Your task to perform on an android device: delete a single message in the gmail app Image 0: 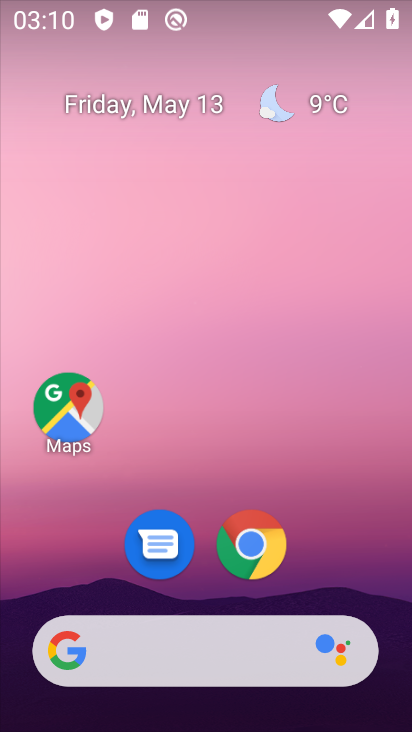
Step 0: drag from (286, 485) to (51, 154)
Your task to perform on an android device: delete a single message in the gmail app Image 1: 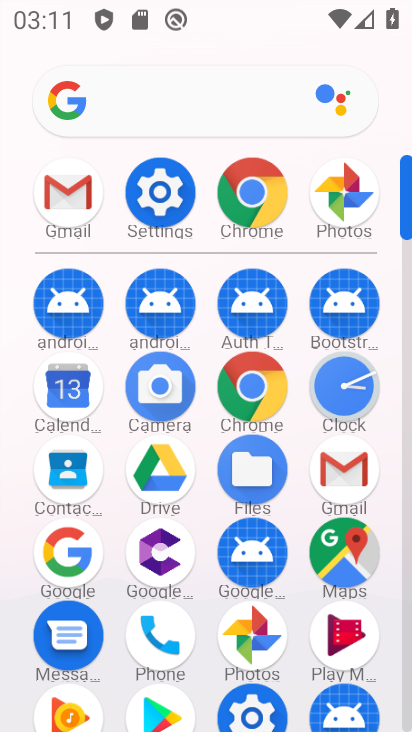
Step 1: drag from (30, 627) to (23, 355)
Your task to perform on an android device: delete a single message in the gmail app Image 2: 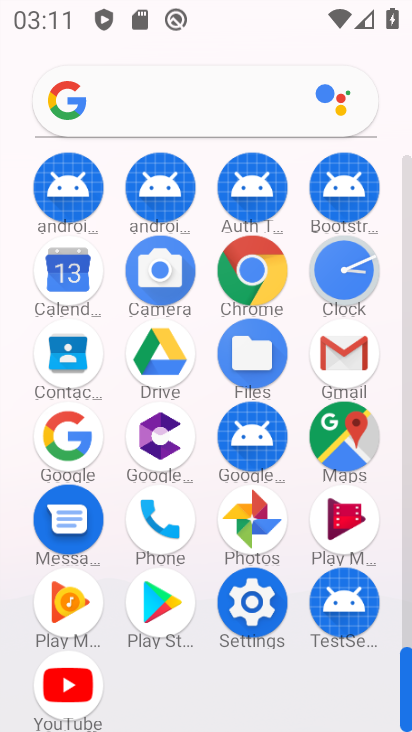
Step 2: click (345, 345)
Your task to perform on an android device: delete a single message in the gmail app Image 3: 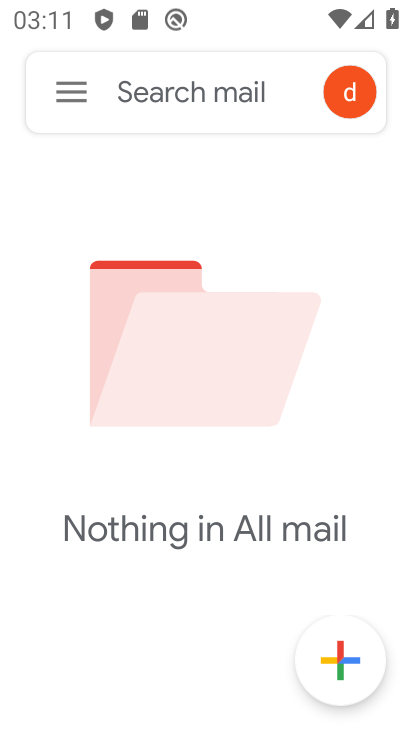
Step 3: click (52, 81)
Your task to perform on an android device: delete a single message in the gmail app Image 4: 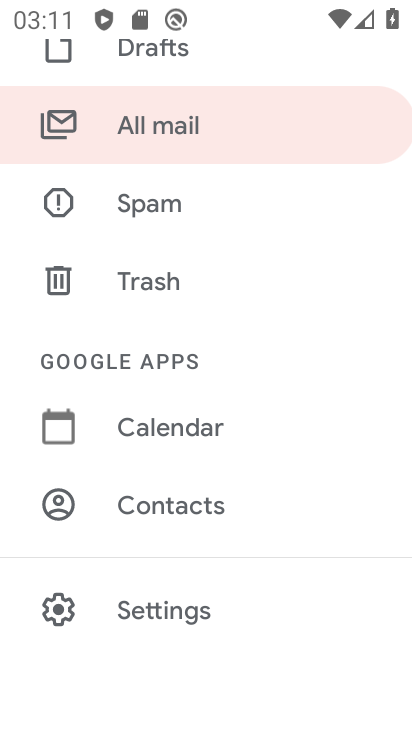
Step 4: click (228, 129)
Your task to perform on an android device: delete a single message in the gmail app Image 5: 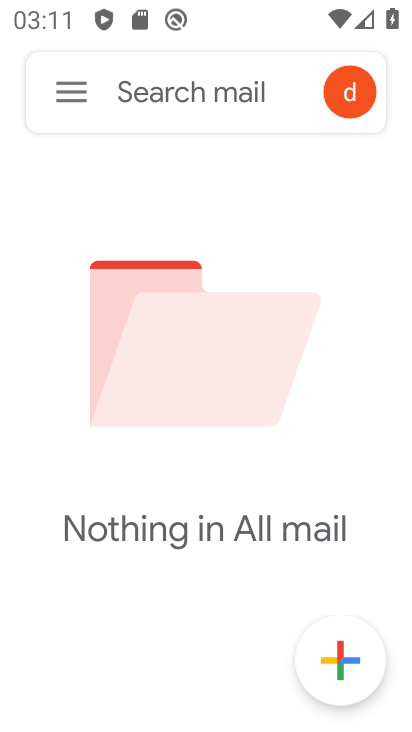
Step 5: click (60, 79)
Your task to perform on an android device: delete a single message in the gmail app Image 6: 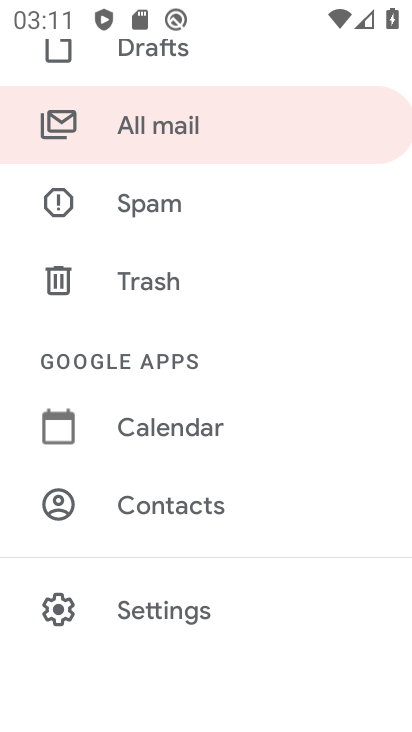
Step 6: drag from (126, 185) to (155, 667)
Your task to perform on an android device: delete a single message in the gmail app Image 7: 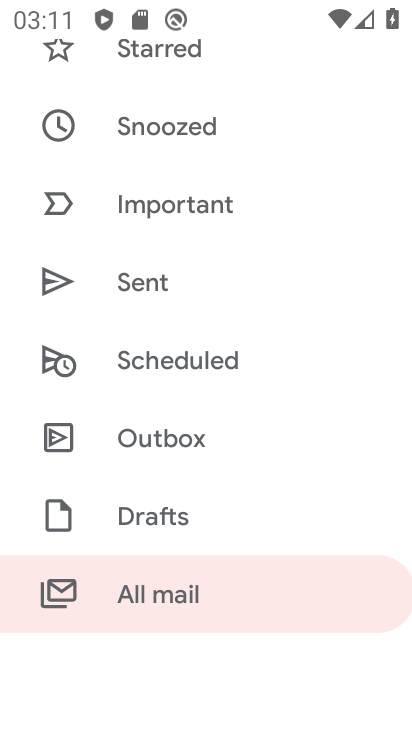
Step 7: drag from (219, 170) to (206, 602)
Your task to perform on an android device: delete a single message in the gmail app Image 8: 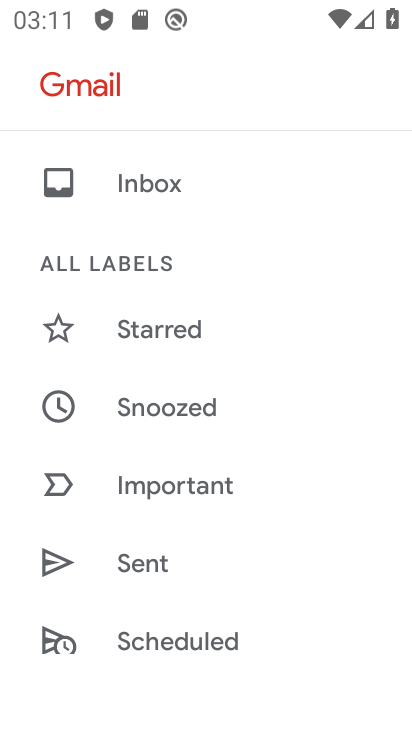
Step 8: click (161, 186)
Your task to perform on an android device: delete a single message in the gmail app Image 9: 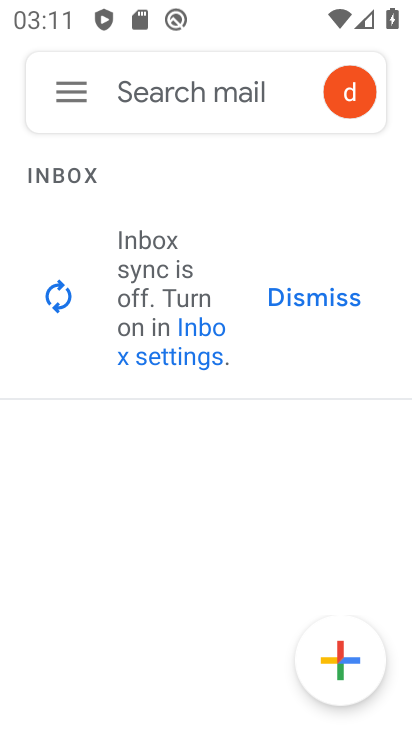
Step 9: click (73, 84)
Your task to perform on an android device: delete a single message in the gmail app Image 10: 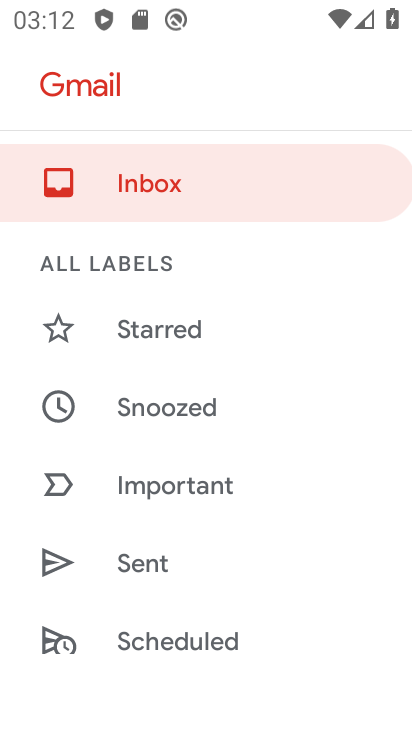
Step 10: drag from (260, 560) to (311, 211)
Your task to perform on an android device: delete a single message in the gmail app Image 11: 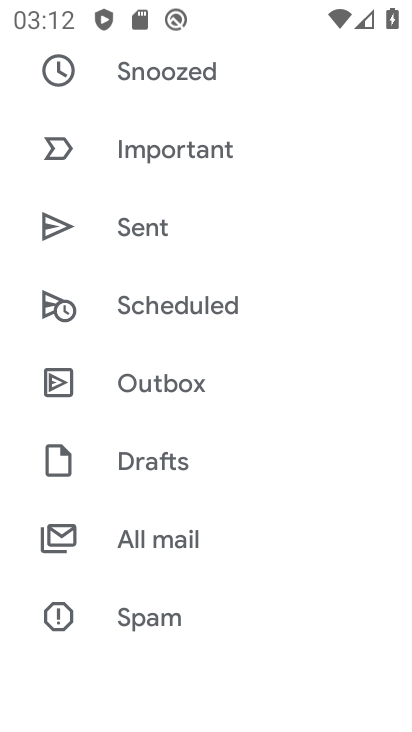
Step 11: click (172, 531)
Your task to perform on an android device: delete a single message in the gmail app Image 12: 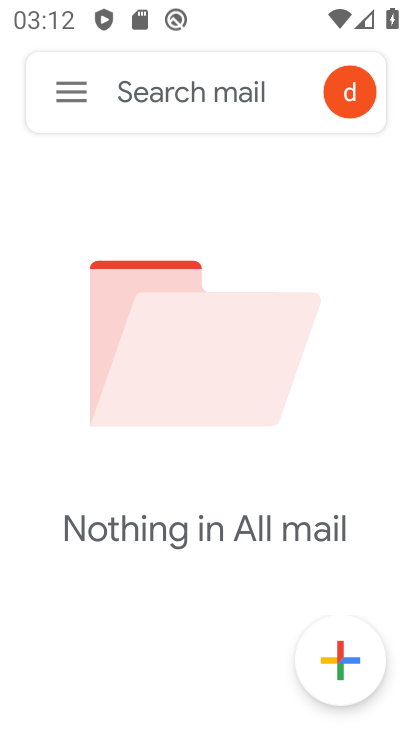
Step 12: task complete